Your task to perform on an android device: Show me popular videos on Youtube Image 0: 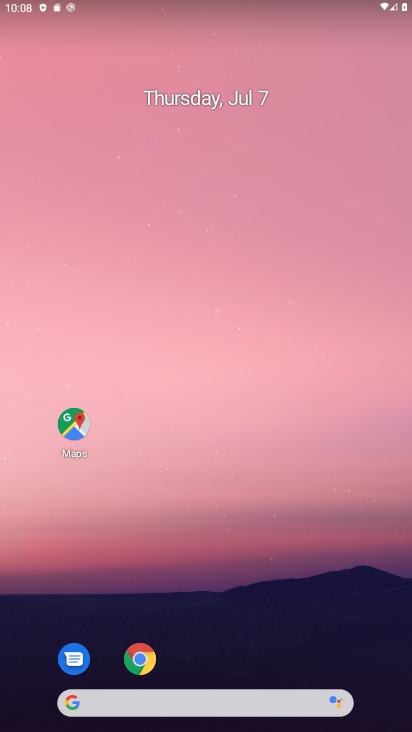
Step 0: drag from (295, 702) to (255, 301)
Your task to perform on an android device: Show me popular videos on Youtube Image 1: 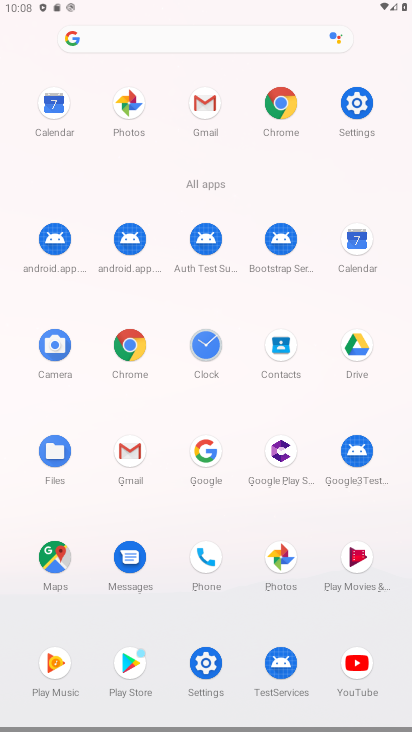
Step 1: click (355, 665)
Your task to perform on an android device: Show me popular videos on Youtube Image 2: 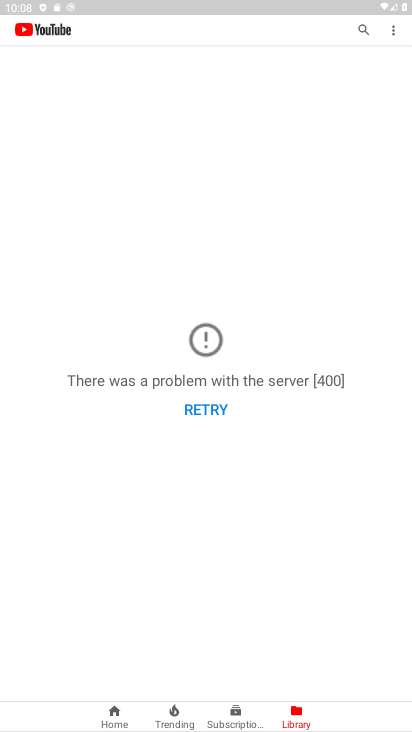
Step 2: click (172, 718)
Your task to perform on an android device: Show me popular videos on Youtube Image 3: 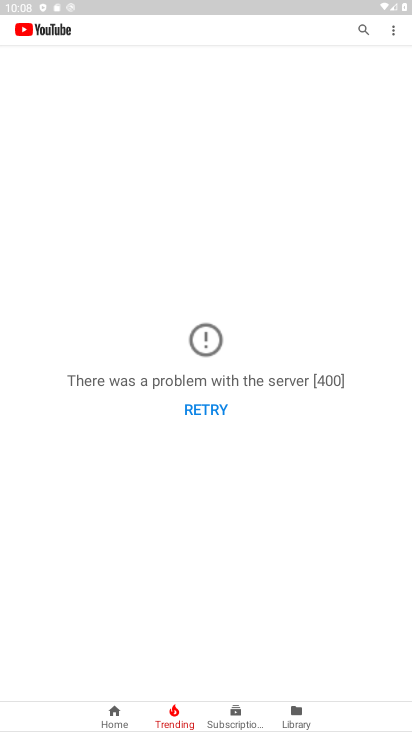
Step 3: task complete